Your task to perform on an android device: turn off airplane mode Image 0: 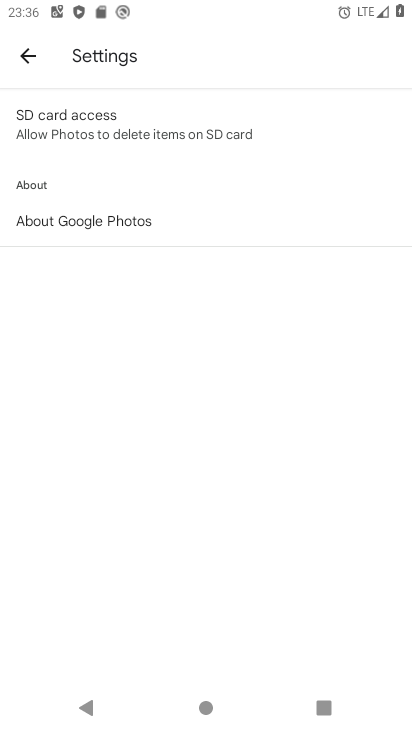
Step 0: press back button
Your task to perform on an android device: turn off airplane mode Image 1: 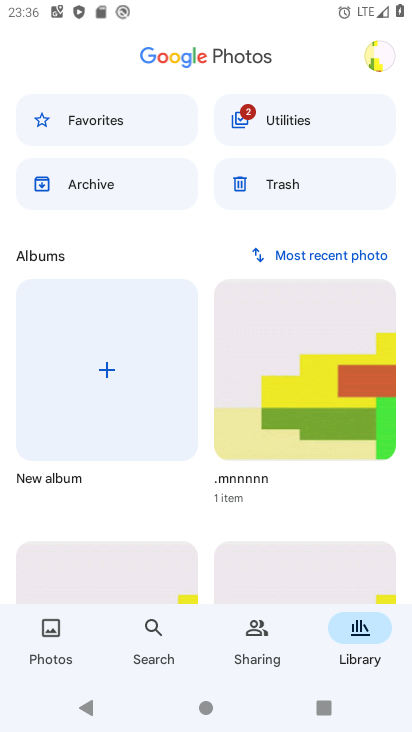
Step 1: press home button
Your task to perform on an android device: turn off airplane mode Image 2: 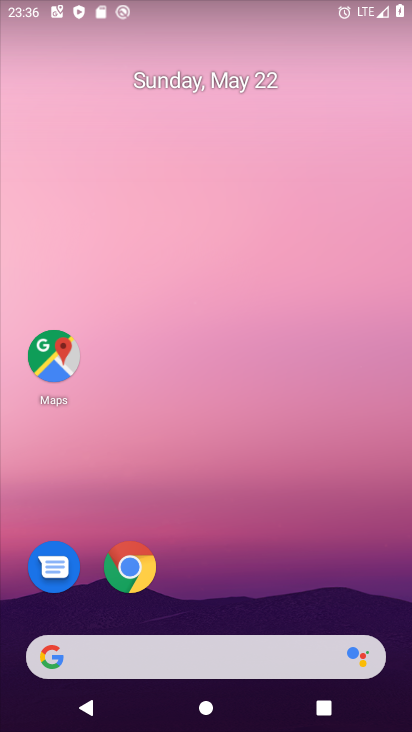
Step 2: drag from (221, 521) to (185, 18)
Your task to perform on an android device: turn off airplane mode Image 3: 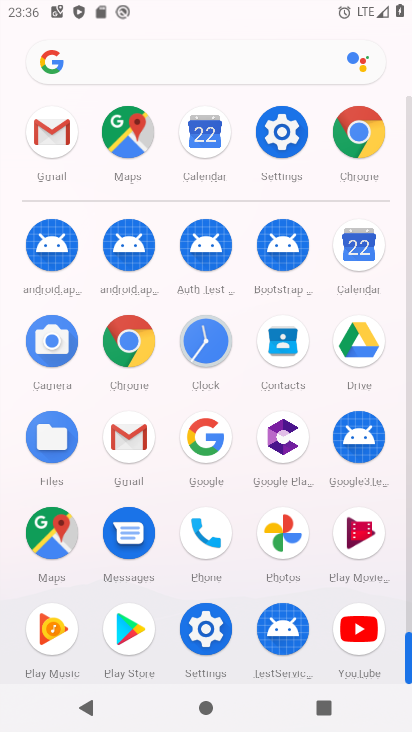
Step 3: drag from (13, 458) to (15, 249)
Your task to perform on an android device: turn off airplane mode Image 4: 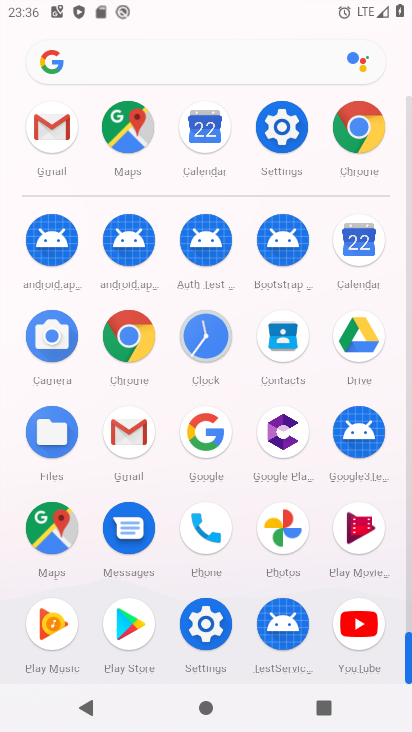
Step 4: click (205, 623)
Your task to perform on an android device: turn off airplane mode Image 5: 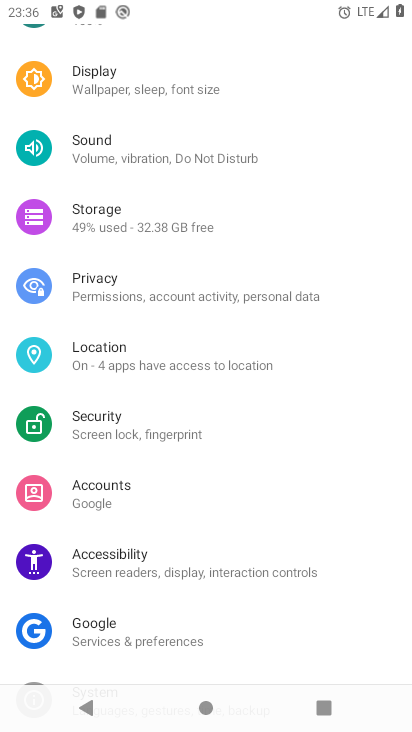
Step 5: drag from (257, 538) to (256, 601)
Your task to perform on an android device: turn off airplane mode Image 6: 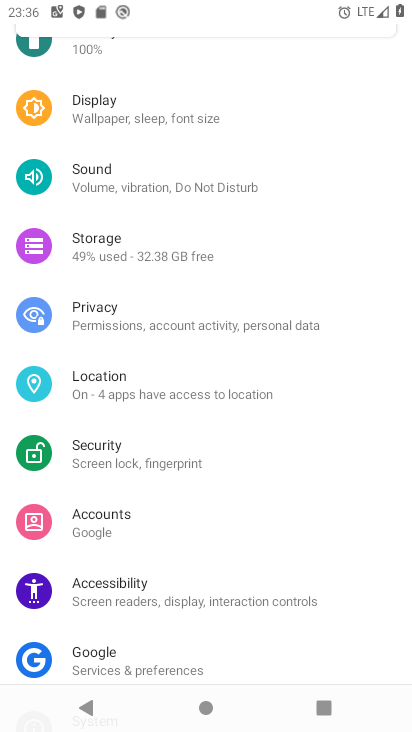
Step 6: drag from (208, 187) to (206, 503)
Your task to perform on an android device: turn off airplane mode Image 7: 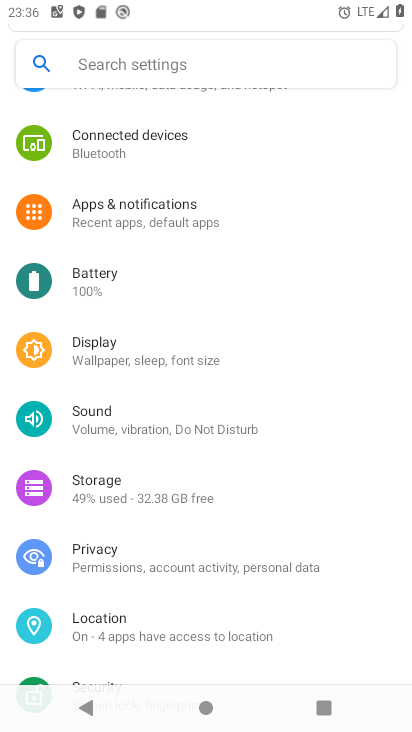
Step 7: drag from (197, 233) to (221, 553)
Your task to perform on an android device: turn off airplane mode Image 8: 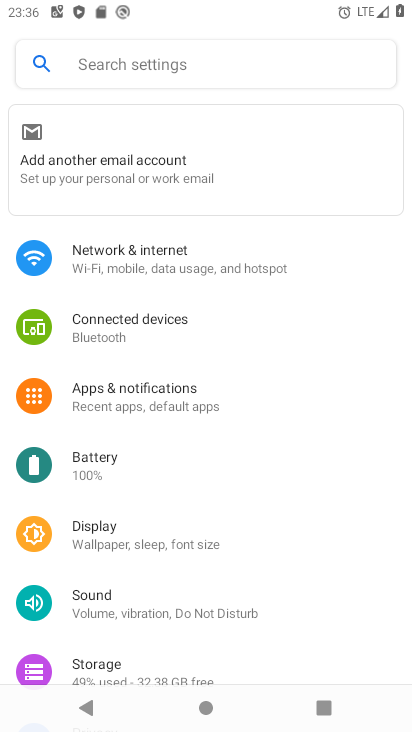
Step 8: click (179, 250)
Your task to perform on an android device: turn off airplane mode Image 9: 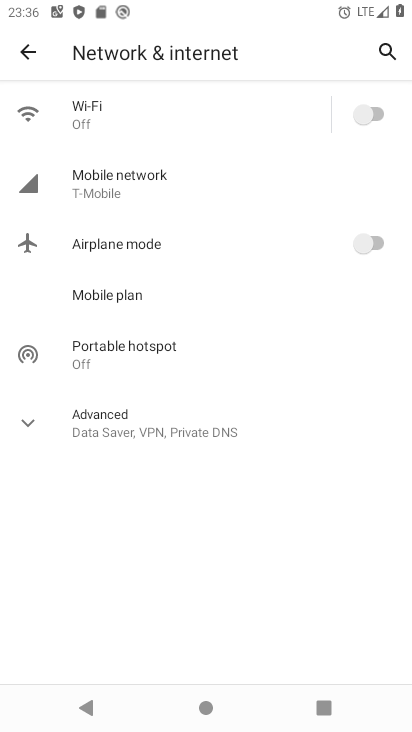
Step 9: task complete